Your task to perform on an android device: What is the recent news? Image 0: 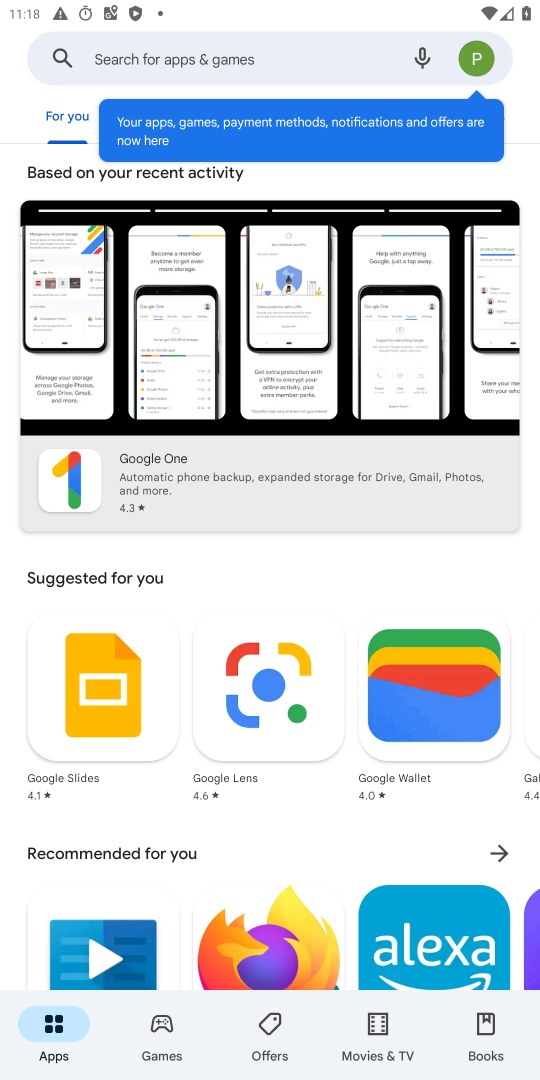
Step 0: press home button
Your task to perform on an android device: What is the recent news? Image 1: 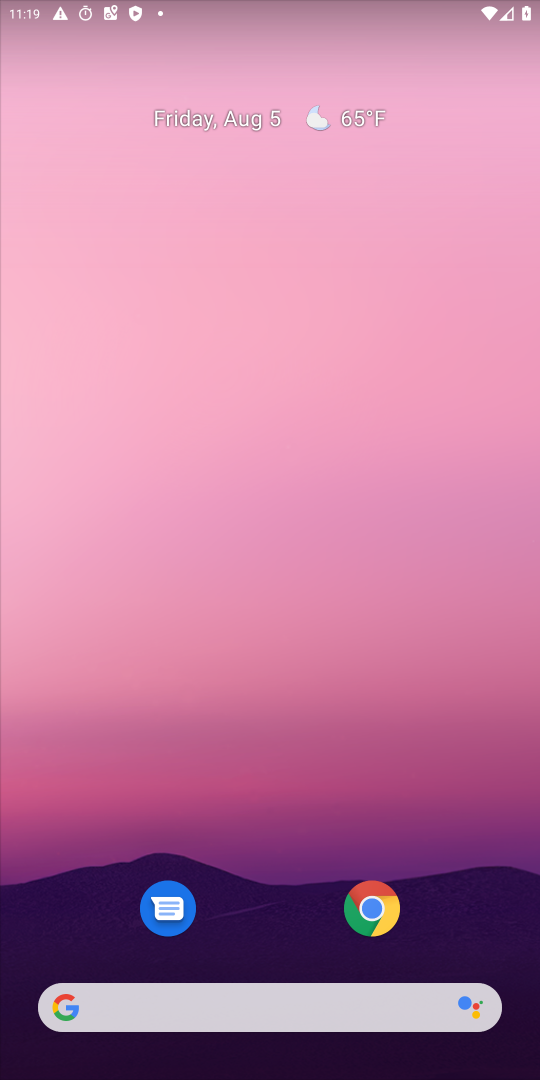
Step 1: click (135, 1002)
Your task to perform on an android device: What is the recent news? Image 2: 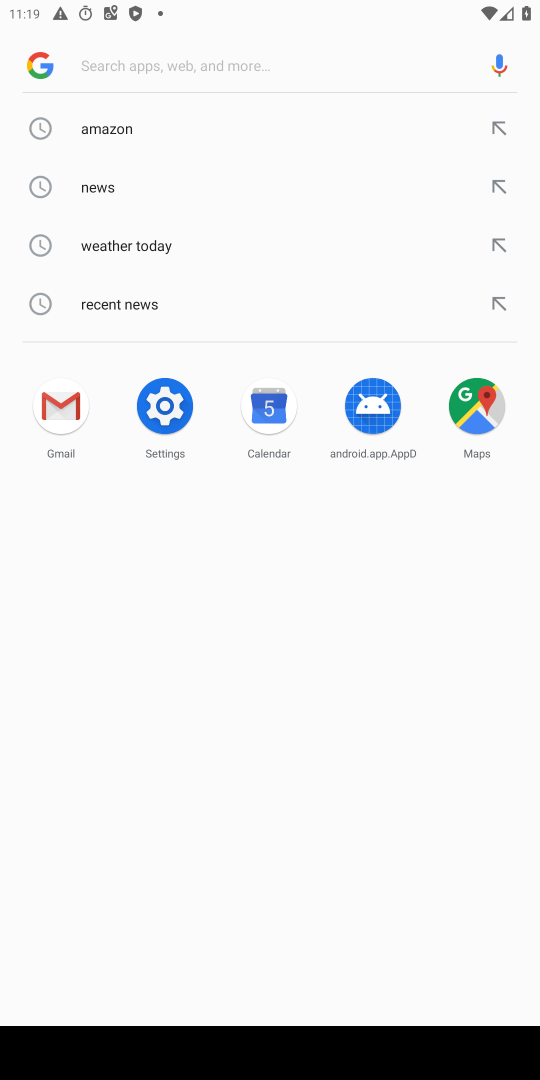
Step 2: type "What is the recent news?"
Your task to perform on an android device: What is the recent news? Image 3: 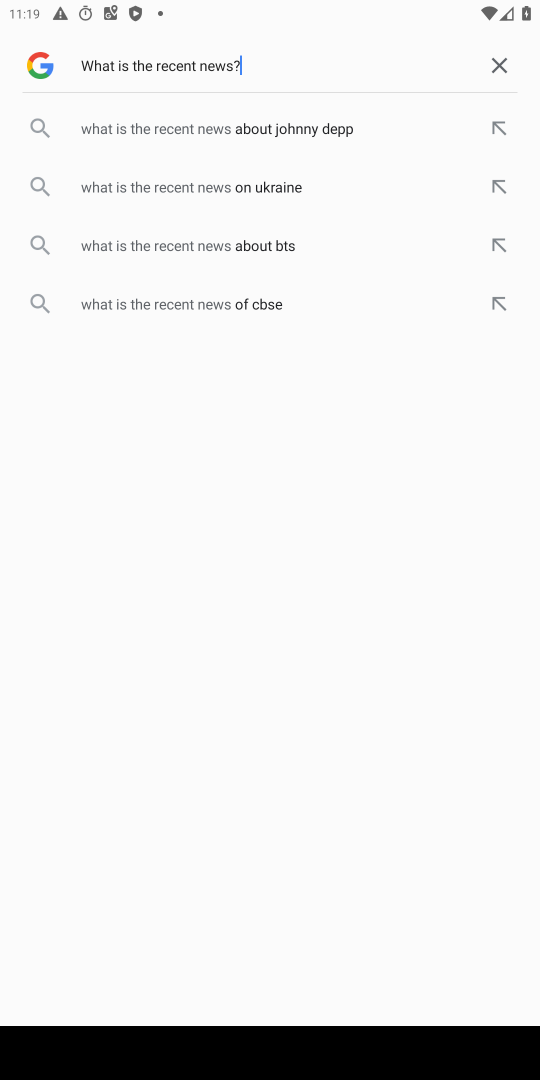
Step 3: type ""
Your task to perform on an android device: What is the recent news? Image 4: 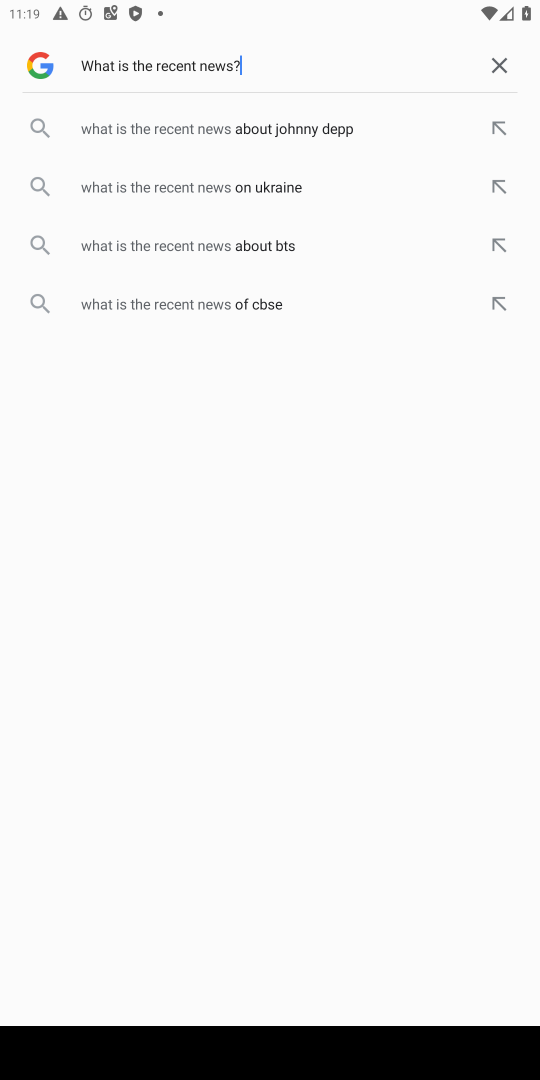
Step 4: type ""
Your task to perform on an android device: What is the recent news? Image 5: 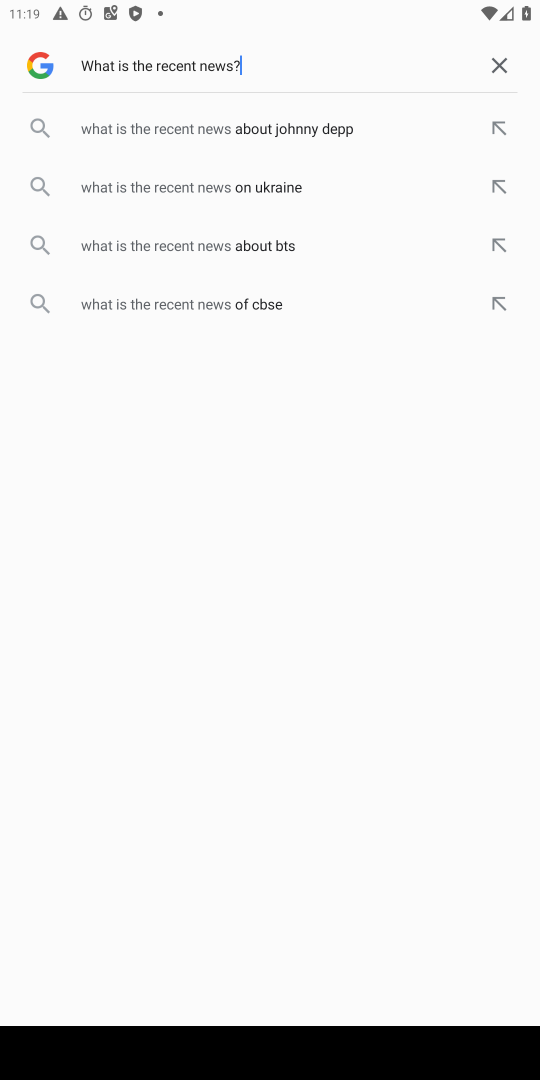
Step 5: task complete